Your task to perform on an android device: turn on wifi Image 0: 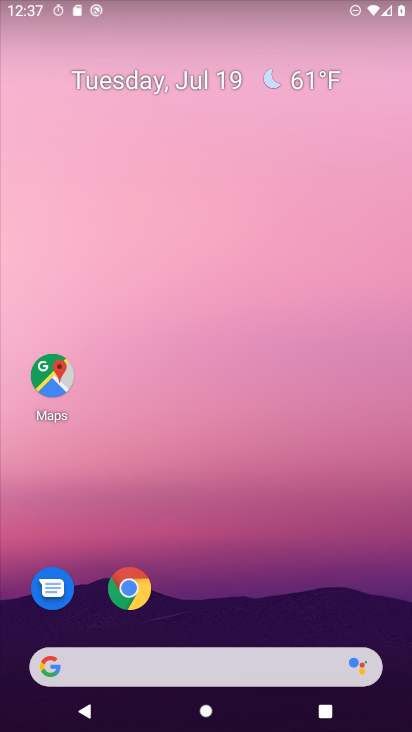
Step 0: drag from (244, 582) to (218, 118)
Your task to perform on an android device: turn on wifi Image 1: 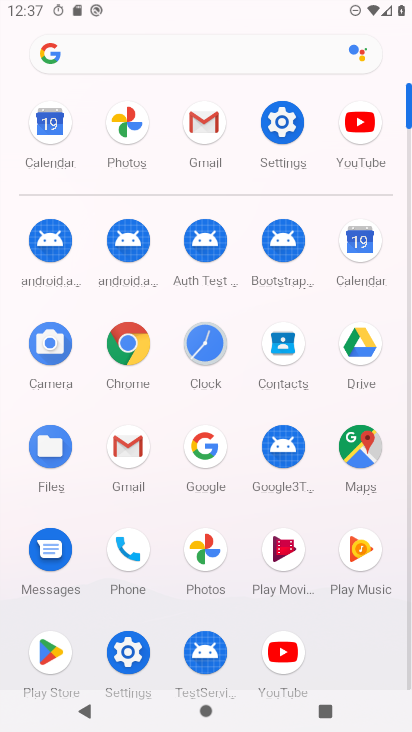
Step 1: click (283, 116)
Your task to perform on an android device: turn on wifi Image 2: 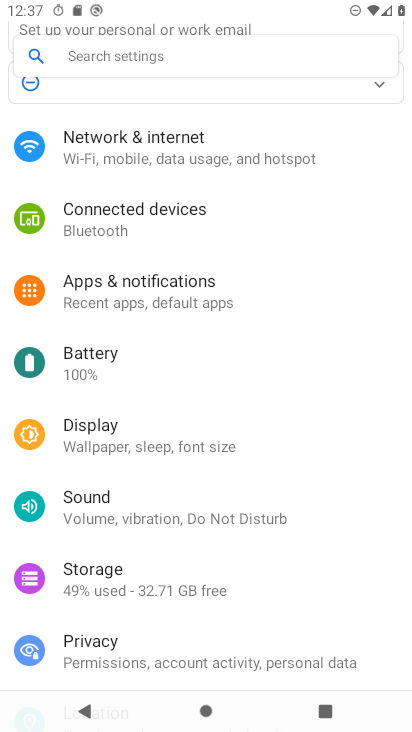
Step 2: click (198, 158)
Your task to perform on an android device: turn on wifi Image 3: 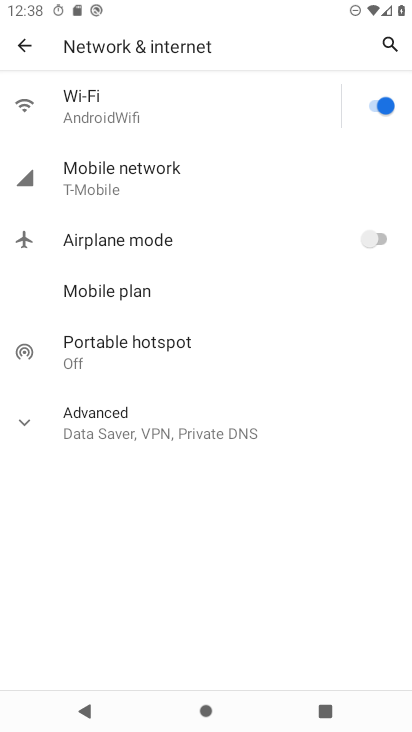
Step 3: click (81, 100)
Your task to perform on an android device: turn on wifi Image 4: 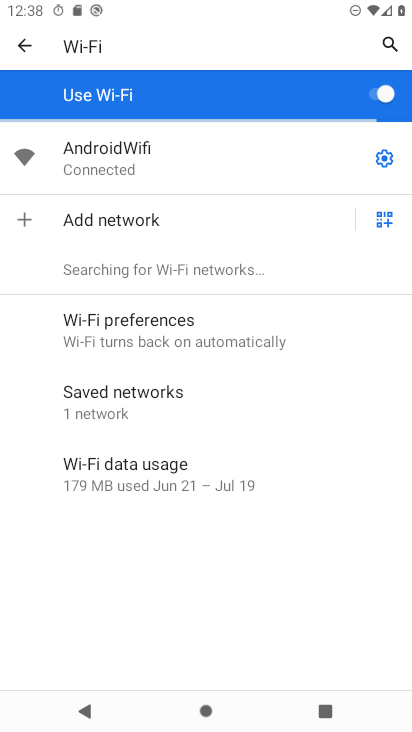
Step 4: task complete